Your task to perform on an android device: turn off location history Image 0: 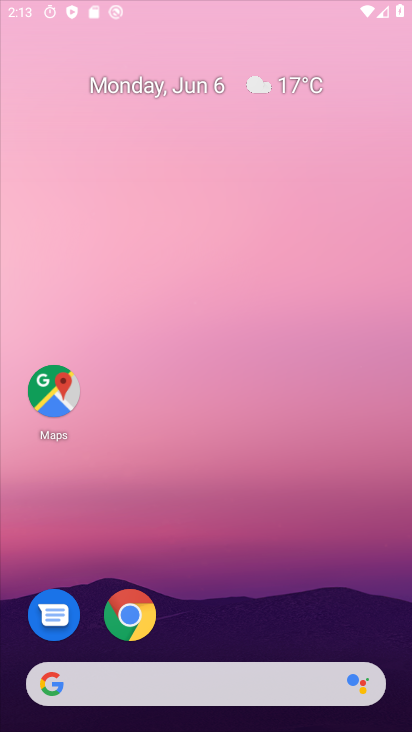
Step 0: drag from (189, 531) to (312, 111)
Your task to perform on an android device: turn off location history Image 1: 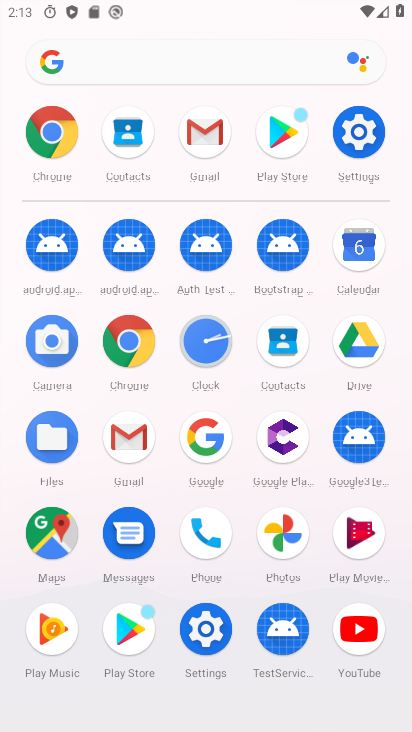
Step 1: click (368, 118)
Your task to perform on an android device: turn off location history Image 2: 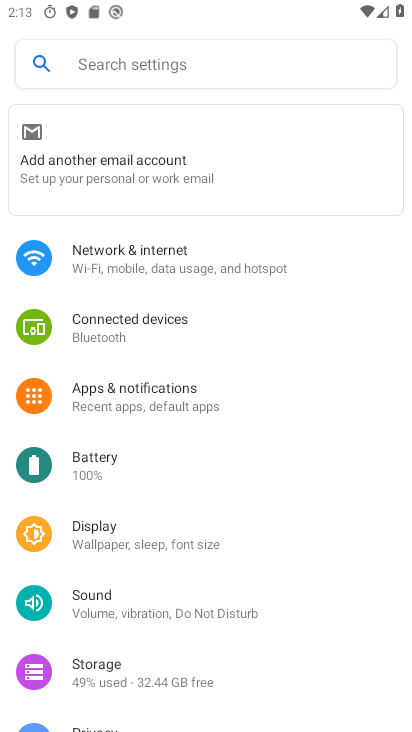
Step 2: drag from (154, 547) to (248, 93)
Your task to perform on an android device: turn off location history Image 3: 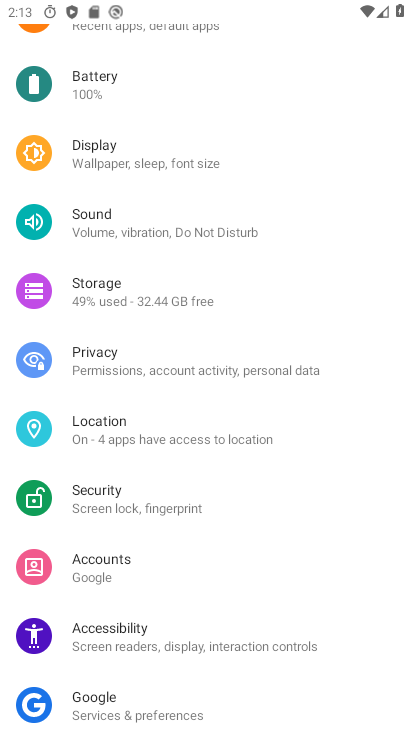
Step 3: drag from (166, 563) to (240, 145)
Your task to perform on an android device: turn off location history Image 4: 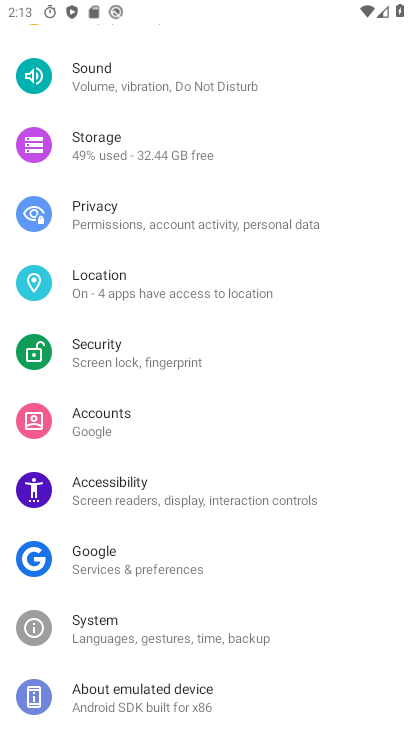
Step 4: click (149, 277)
Your task to perform on an android device: turn off location history Image 5: 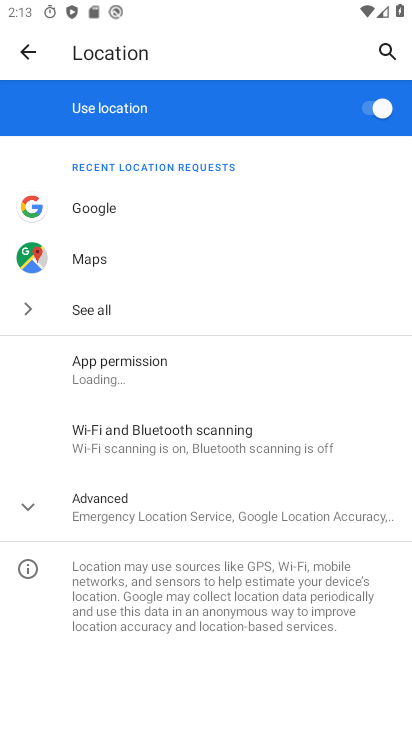
Step 5: click (141, 496)
Your task to perform on an android device: turn off location history Image 6: 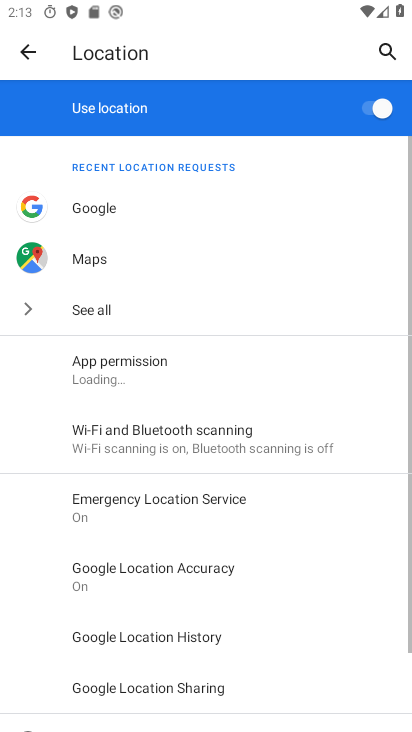
Step 6: drag from (186, 452) to (260, 91)
Your task to perform on an android device: turn off location history Image 7: 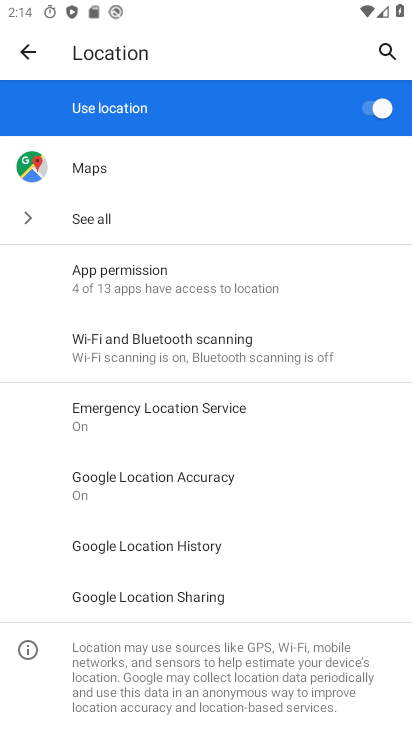
Step 7: click (210, 536)
Your task to perform on an android device: turn off location history Image 8: 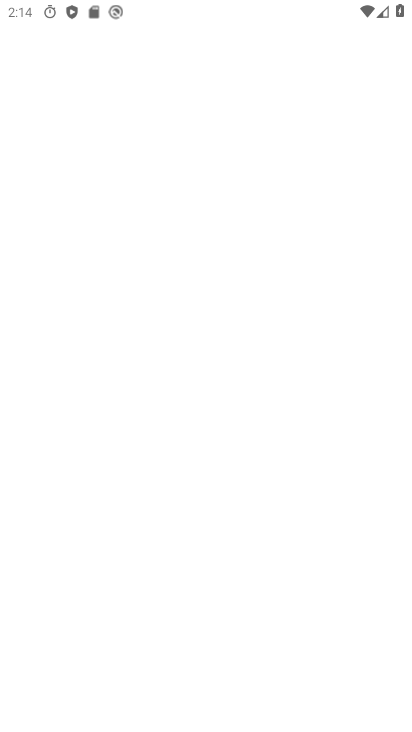
Step 8: task complete